Your task to perform on an android device: Open the Play Movies app and select the watchlist tab. Image 0: 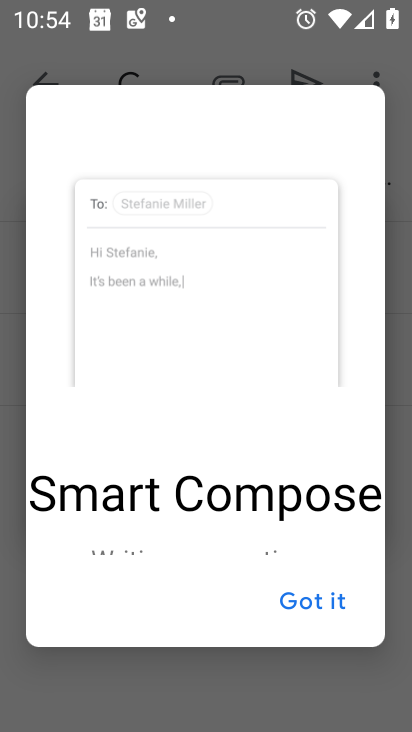
Step 0: press home button
Your task to perform on an android device: Open the Play Movies app and select the watchlist tab. Image 1: 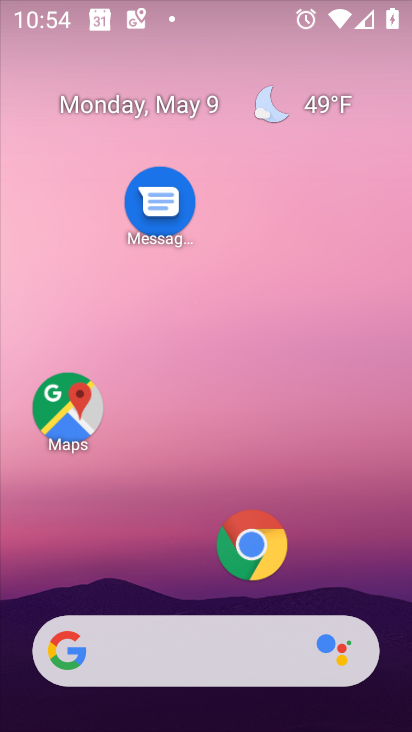
Step 1: click (339, 0)
Your task to perform on an android device: Open the Play Movies app and select the watchlist tab. Image 2: 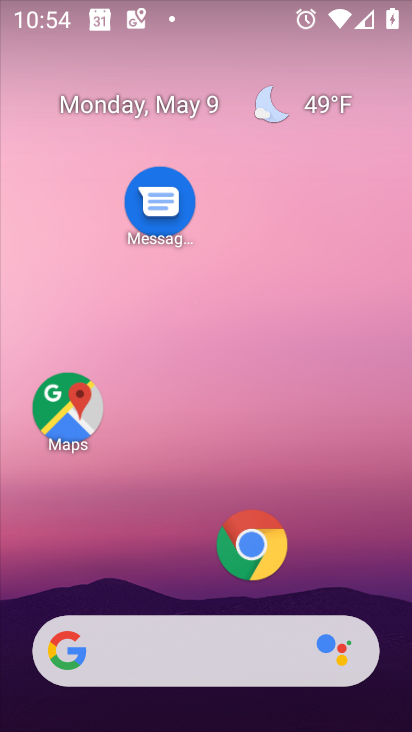
Step 2: drag from (331, 475) to (379, 10)
Your task to perform on an android device: Open the Play Movies app and select the watchlist tab. Image 3: 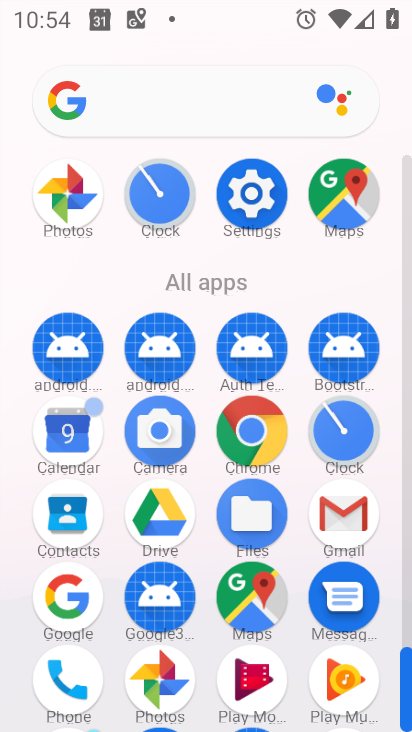
Step 3: drag from (247, 617) to (302, 190)
Your task to perform on an android device: Open the Play Movies app and select the watchlist tab. Image 4: 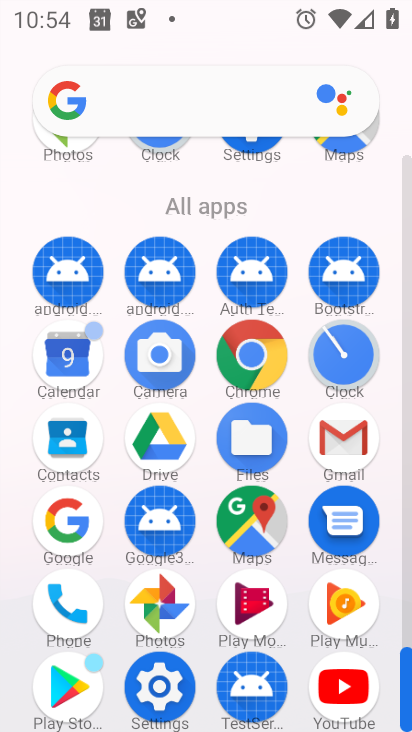
Step 4: click (253, 596)
Your task to perform on an android device: Open the Play Movies app and select the watchlist tab. Image 5: 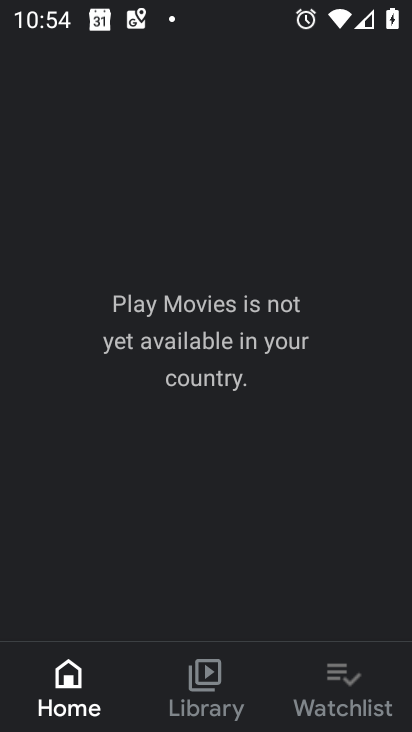
Step 5: click (340, 688)
Your task to perform on an android device: Open the Play Movies app and select the watchlist tab. Image 6: 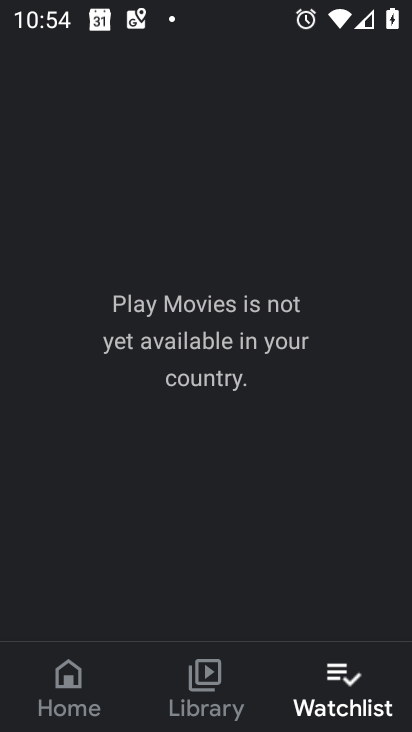
Step 6: task complete